Your task to perform on an android device: What's on my calendar tomorrow? Image 0: 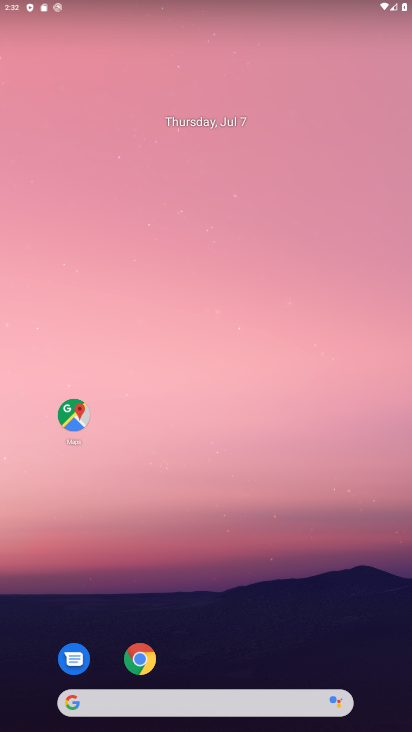
Step 0: drag from (258, 604) to (120, 155)
Your task to perform on an android device: What's on my calendar tomorrow? Image 1: 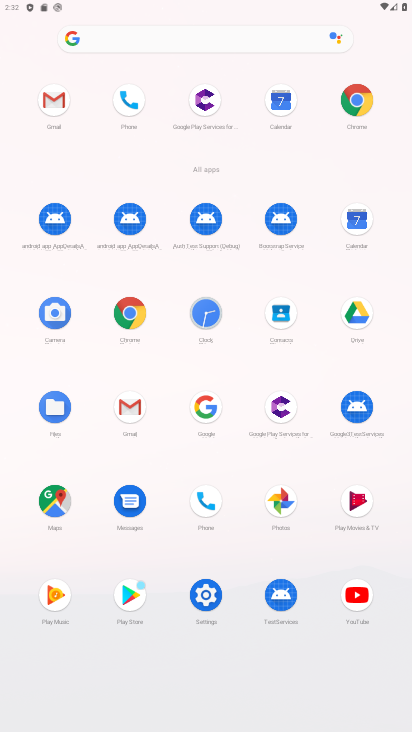
Step 1: click (283, 104)
Your task to perform on an android device: What's on my calendar tomorrow? Image 2: 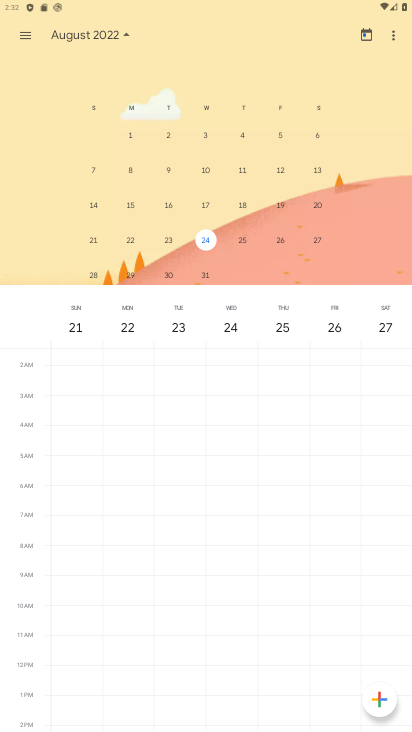
Step 2: drag from (97, 174) to (411, 189)
Your task to perform on an android device: What's on my calendar tomorrow? Image 3: 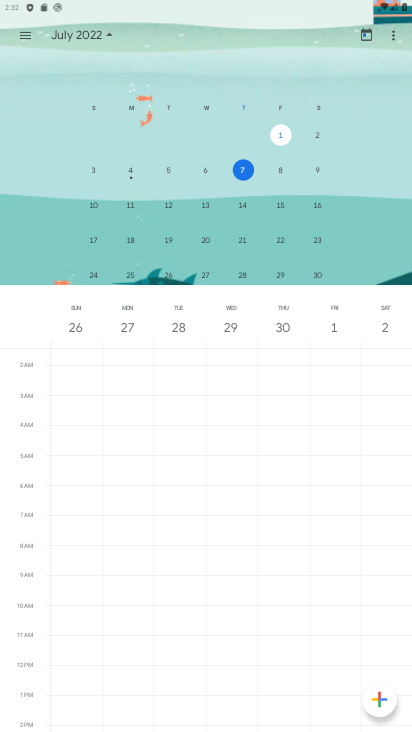
Step 3: click (285, 173)
Your task to perform on an android device: What's on my calendar tomorrow? Image 4: 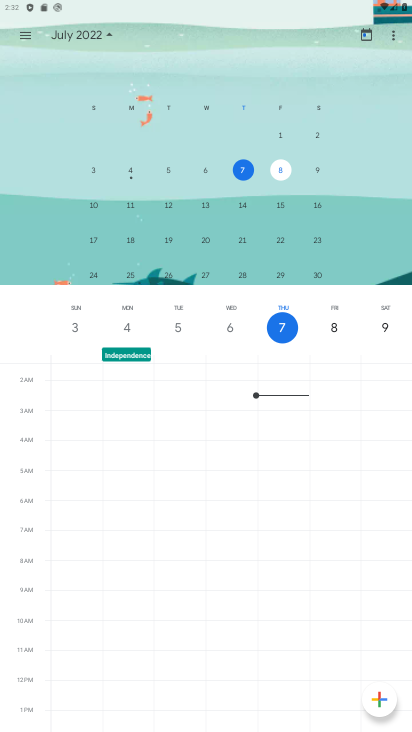
Step 4: task complete